Your task to perform on an android device: toggle improve location accuracy Image 0: 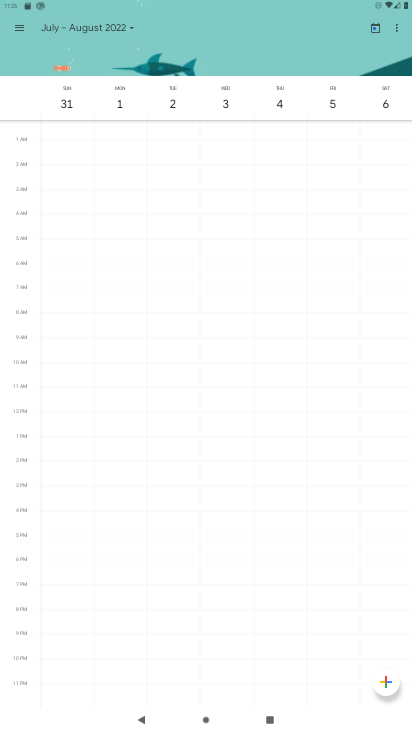
Step 0: press home button
Your task to perform on an android device: toggle improve location accuracy Image 1: 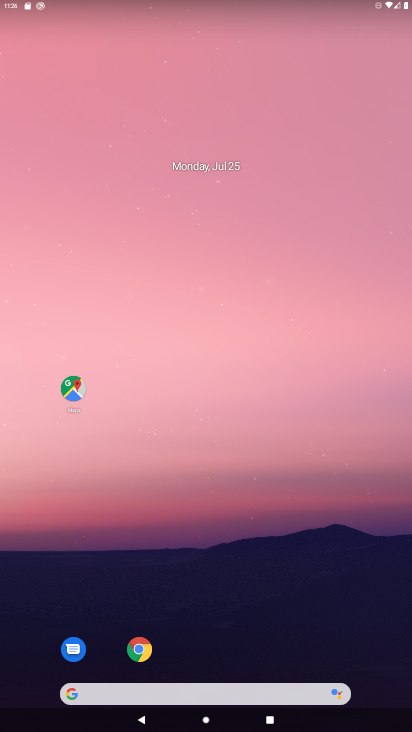
Step 1: drag from (334, 653) to (306, 105)
Your task to perform on an android device: toggle improve location accuracy Image 2: 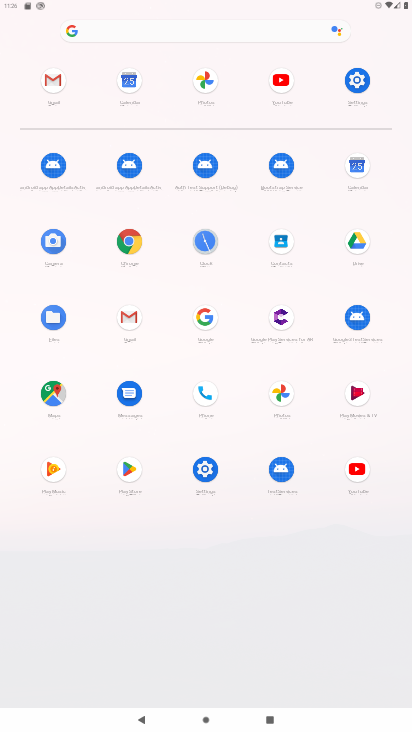
Step 2: click (207, 467)
Your task to perform on an android device: toggle improve location accuracy Image 3: 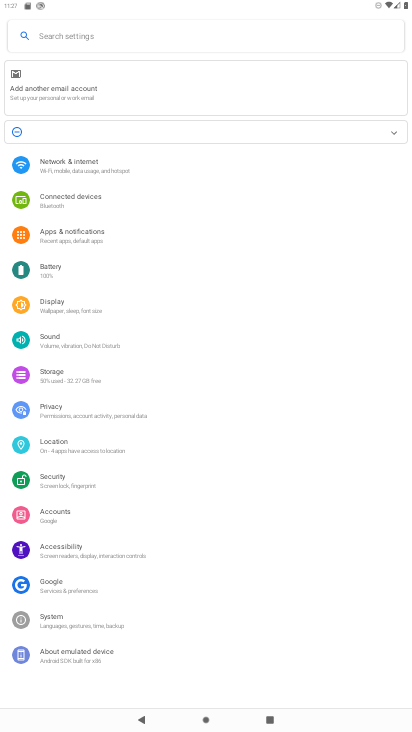
Step 3: click (49, 439)
Your task to perform on an android device: toggle improve location accuracy Image 4: 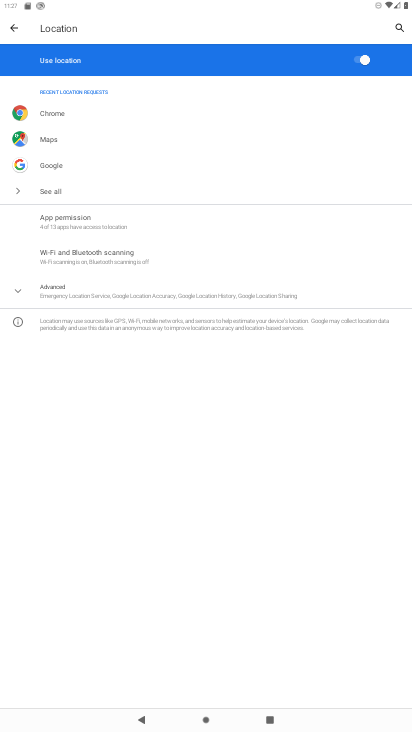
Step 4: click (17, 292)
Your task to perform on an android device: toggle improve location accuracy Image 5: 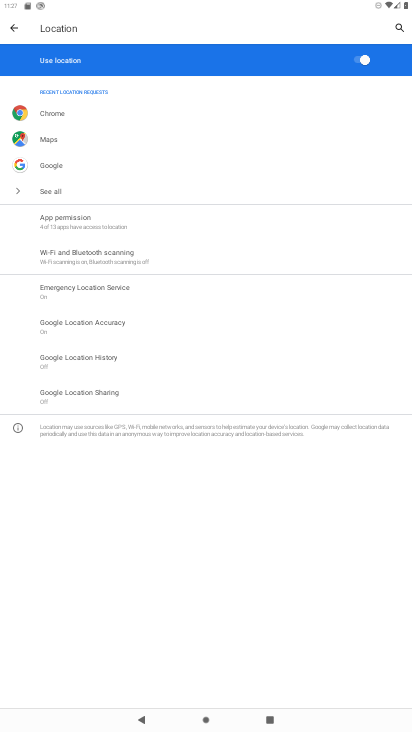
Step 5: click (53, 319)
Your task to perform on an android device: toggle improve location accuracy Image 6: 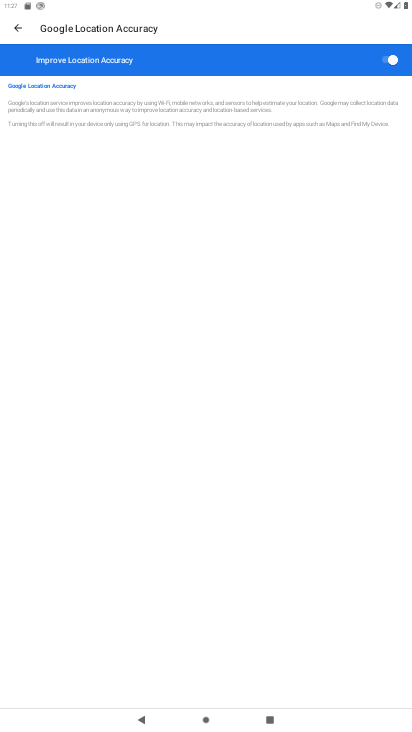
Step 6: click (382, 59)
Your task to perform on an android device: toggle improve location accuracy Image 7: 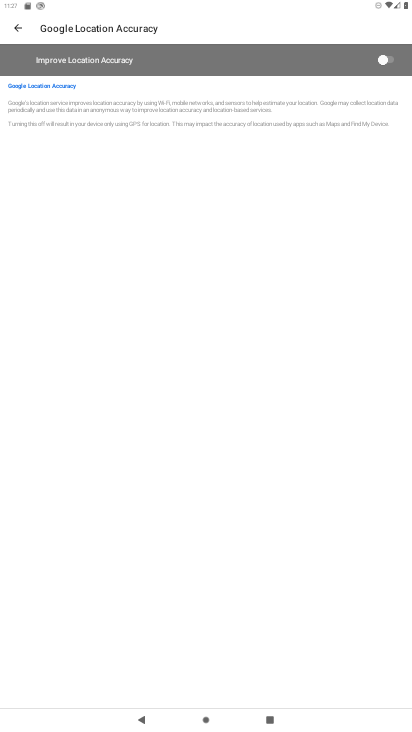
Step 7: task complete